Your task to perform on an android device: Is it going to rain this weekend? Image 0: 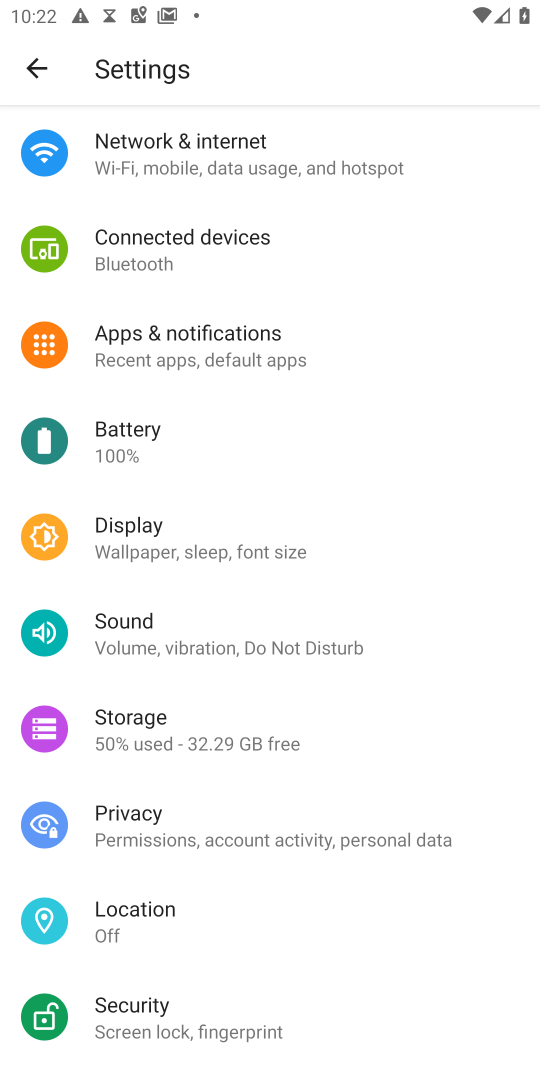
Step 0: press home button
Your task to perform on an android device: Is it going to rain this weekend? Image 1: 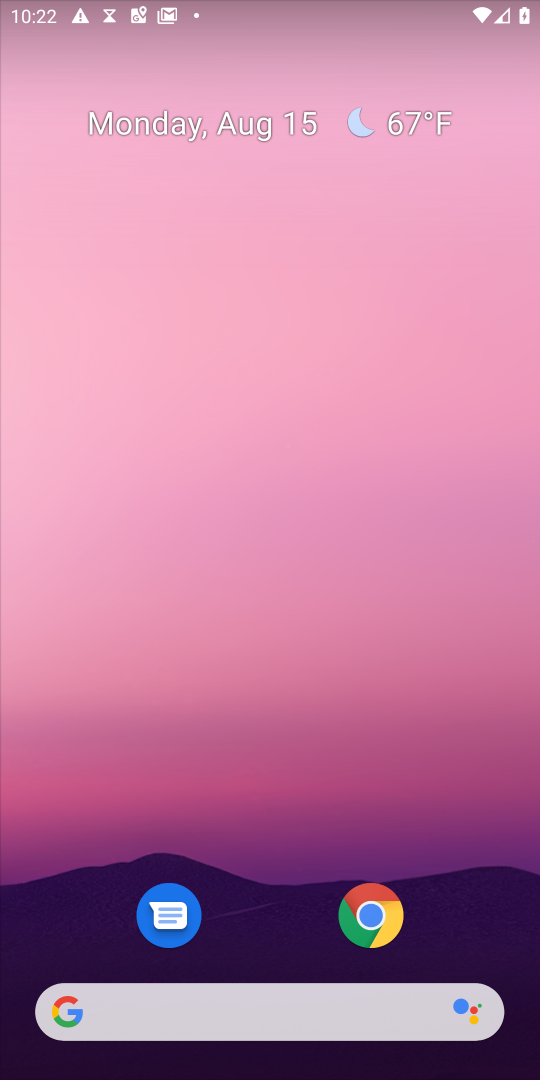
Step 1: click (63, 1016)
Your task to perform on an android device: Is it going to rain this weekend? Image 2: 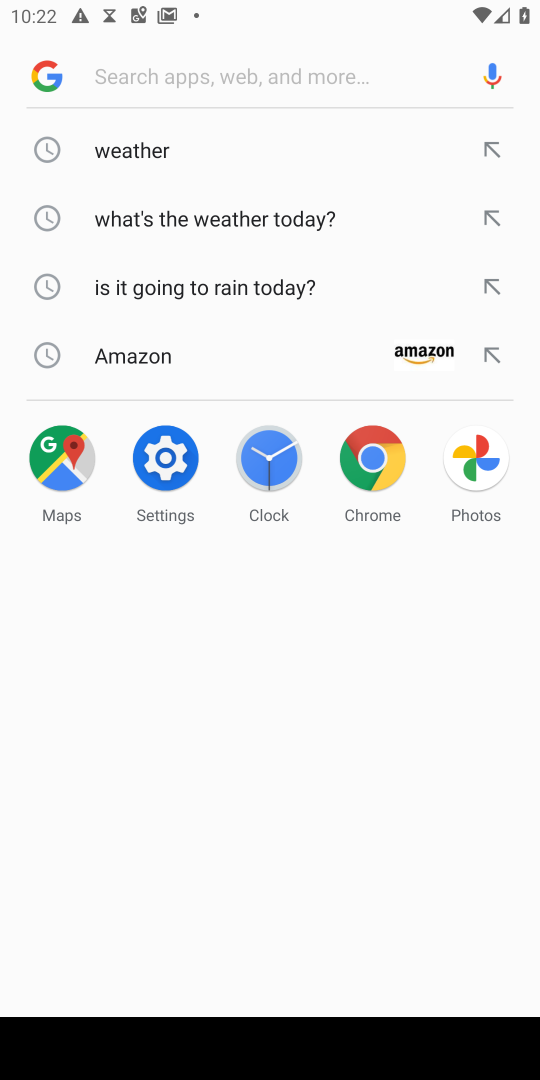
Step 2: type "Is it going to rain this weekend?"
Your task to perform on an android device: Is it going to rain this weekend? Image 3: 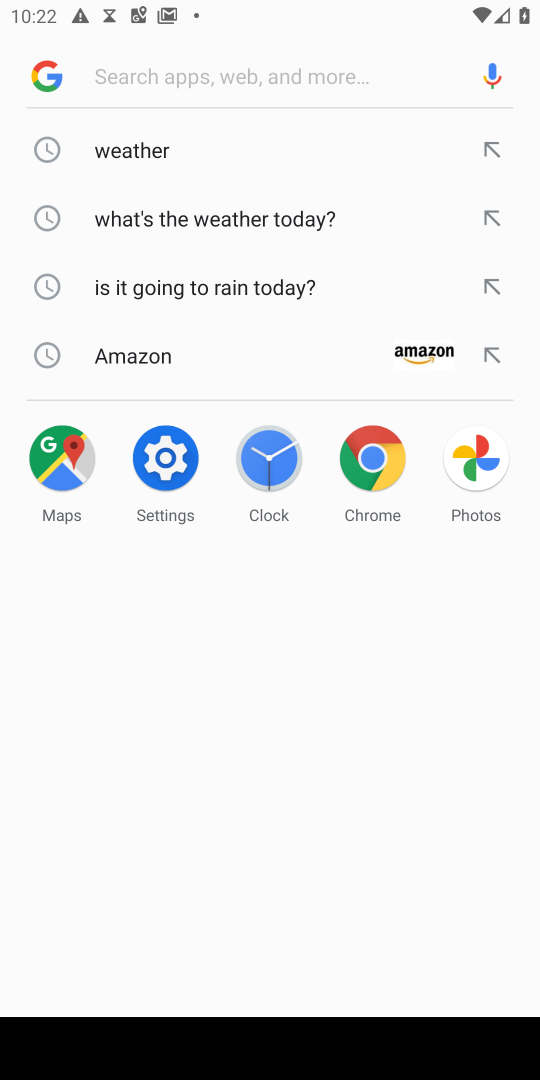
Step 3: click (172, 68)
Your task to perform on an android device: Is it going to rain this weekend? Image 4: 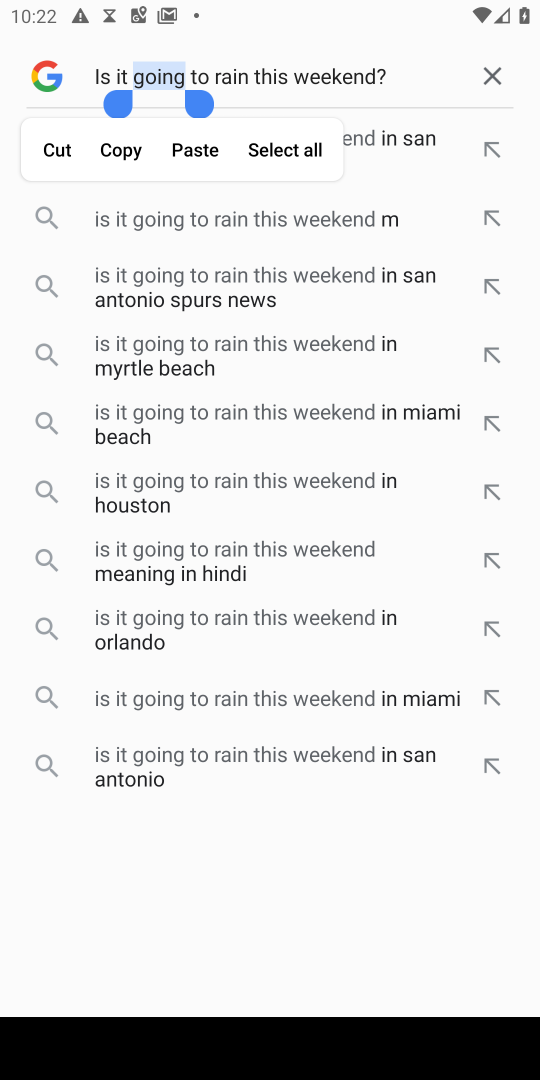
Step 4: press enter
Your task to perform on an android device: Is it going to rain this weekend? Image 5: 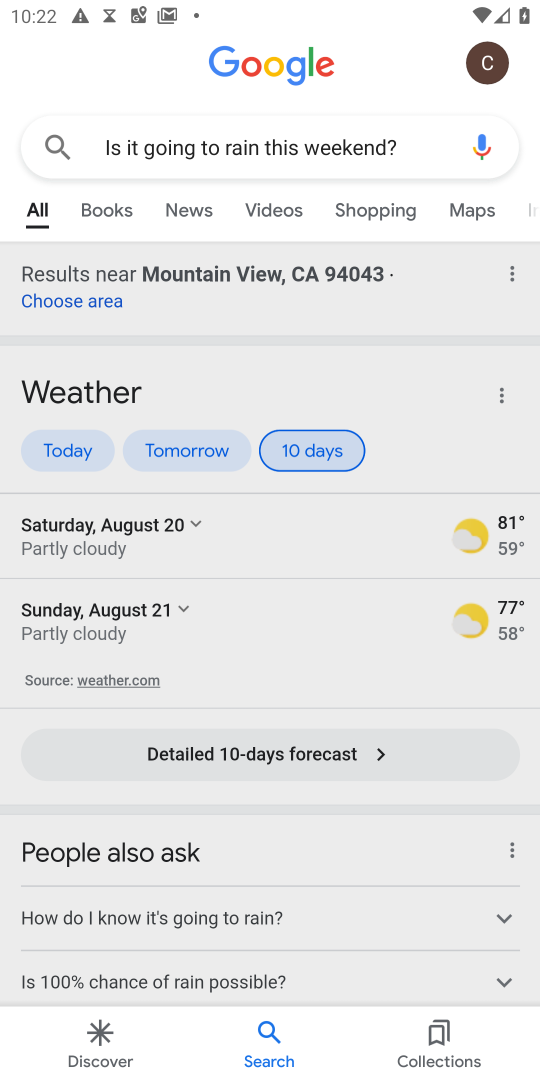
Step 5: task complete